Your task to perform on an android device: Go to internet settings Image 0: 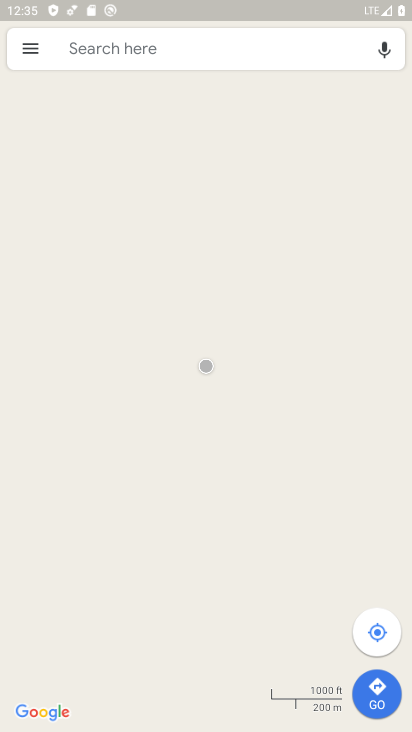
Step 0: press home button
Your task to perform on an android device: Go to internet settings Image 1: 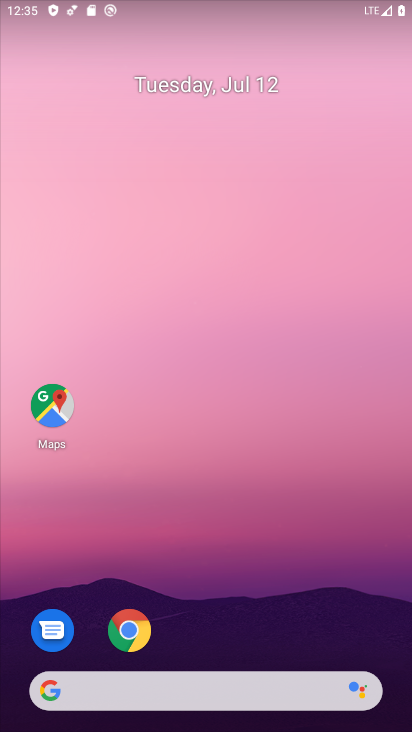
Step 1: click (234, 614)
Your task to perform on an android device: Go to internet settings Image 2: 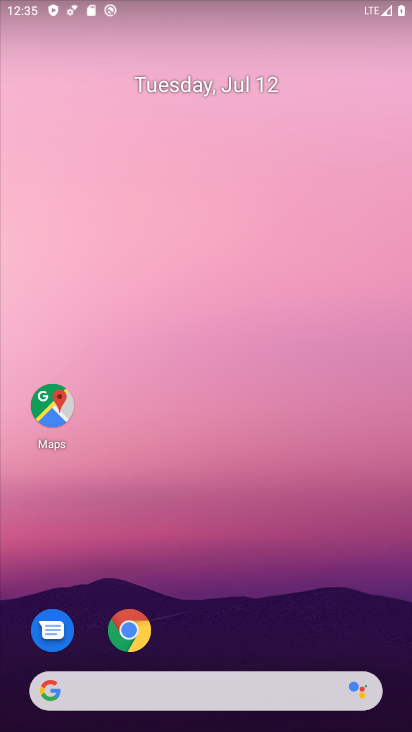
Step 2: drag from (235, 624) to (170, 82)
Your task to perform on an android device: Go to internet settings Image 3: 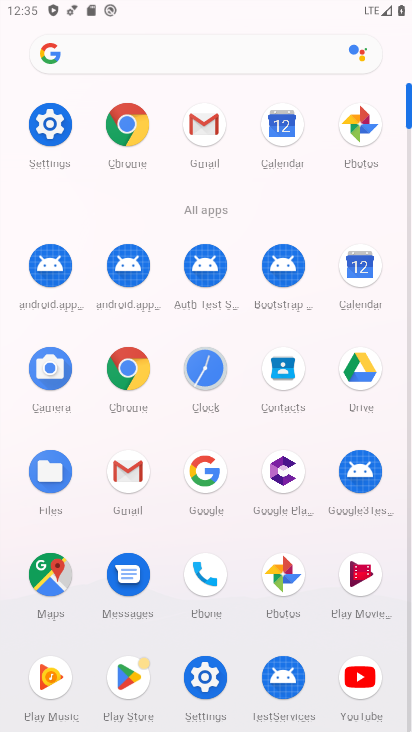
Step 3: click (41, 138)
Your task to perform on an android device: Go to internet settings Image 4: 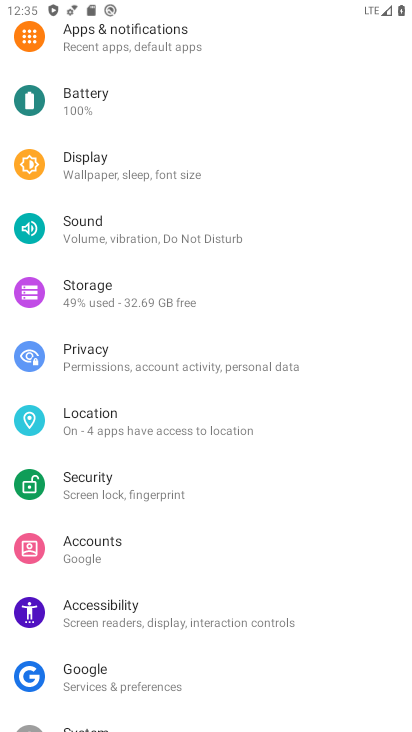
Step 4: drag from (172, 43) to (154, 199)
Your task to perform on an android device: Go to internet settings Image 5: 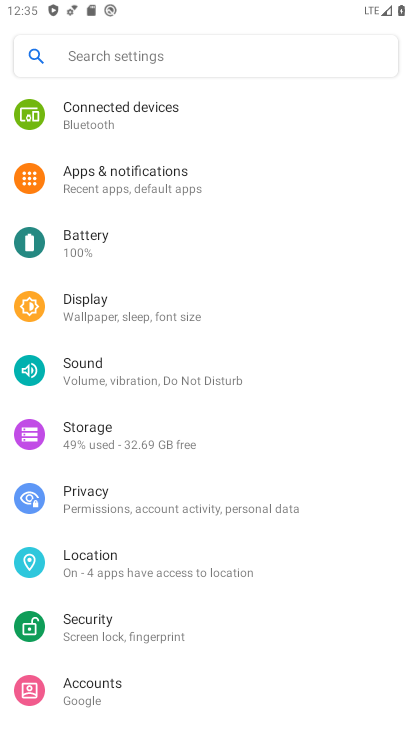
Step 5: drag from (176, 136) to (146, 403)
Your task to perform on an android device: Go to internet settings Image 6: 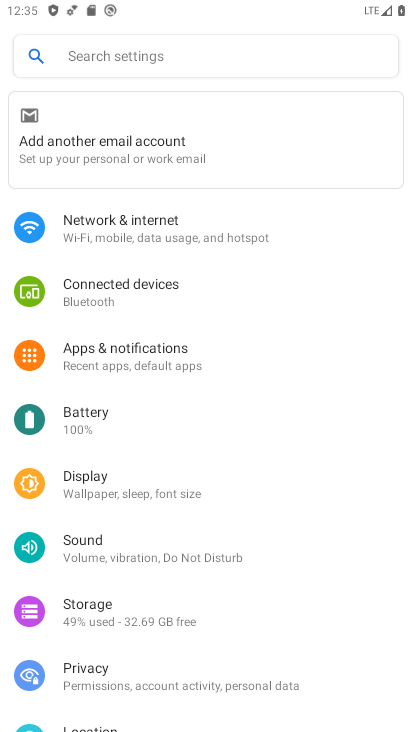
Step 6: click (257, 231)
Your task to perform on an android device: Go to internet settings Image 7: 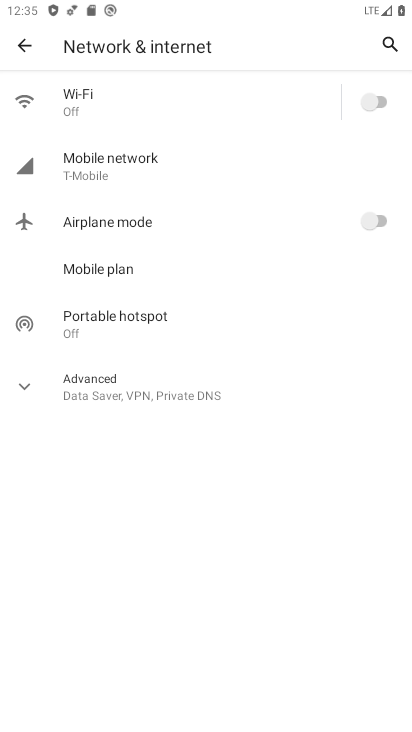
Step 7: click (128, 156)
Your task to perform on an android device: Go to internet settings Image 8: 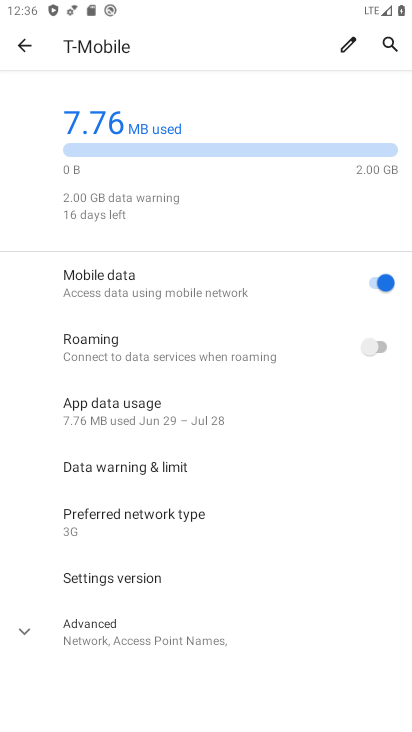
Step 8: task complete